Your task to perform on an android device: change the clock display to analog Image 0: 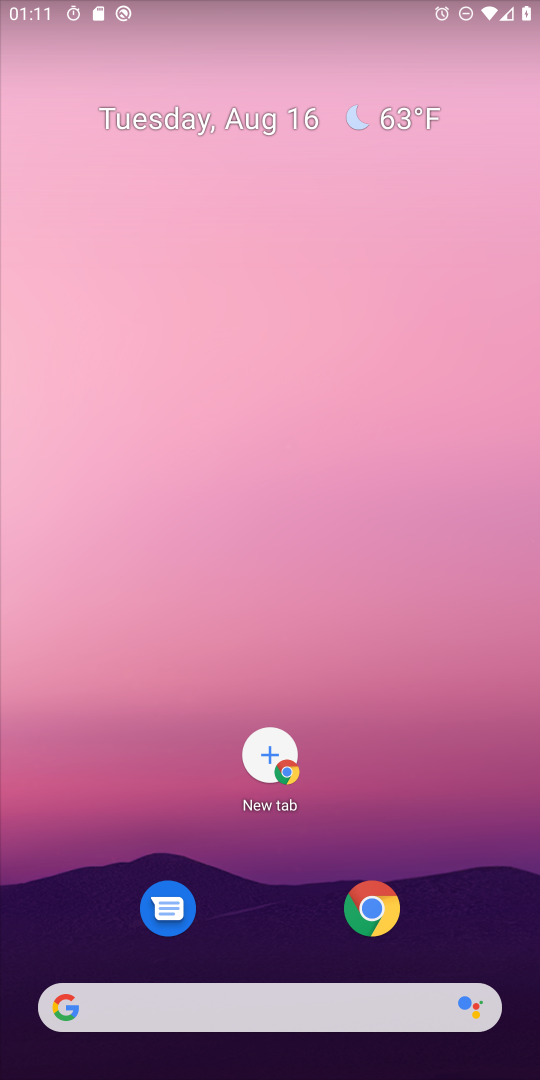
Step 0: drag from (265, 915) to (256, 24)
Your task to perform on an android device: change the clock display to analog Image 1: 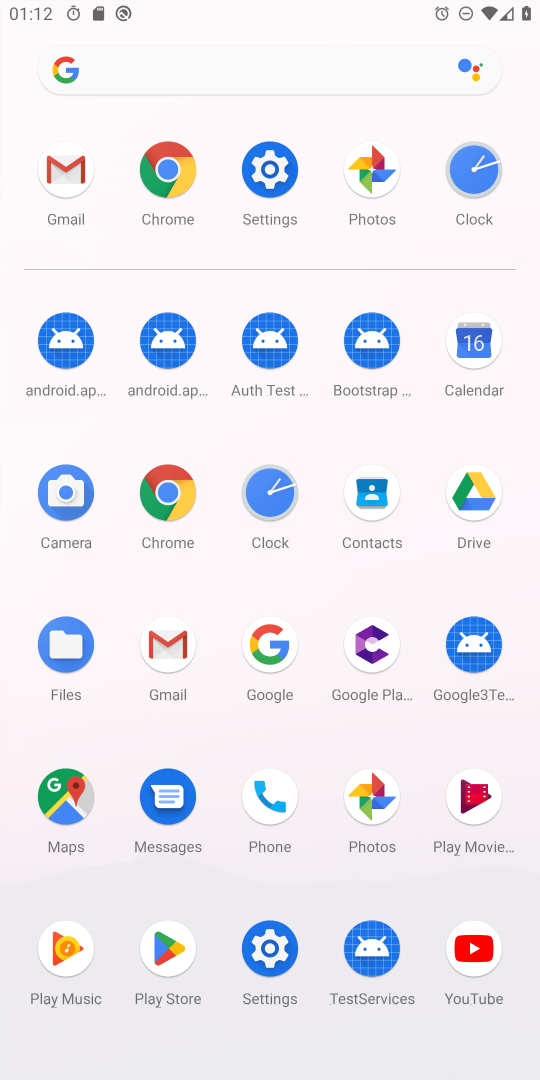
Step 1: click (479, 175)
Your task to perform on an android device: change the clock display to analog Image 2: 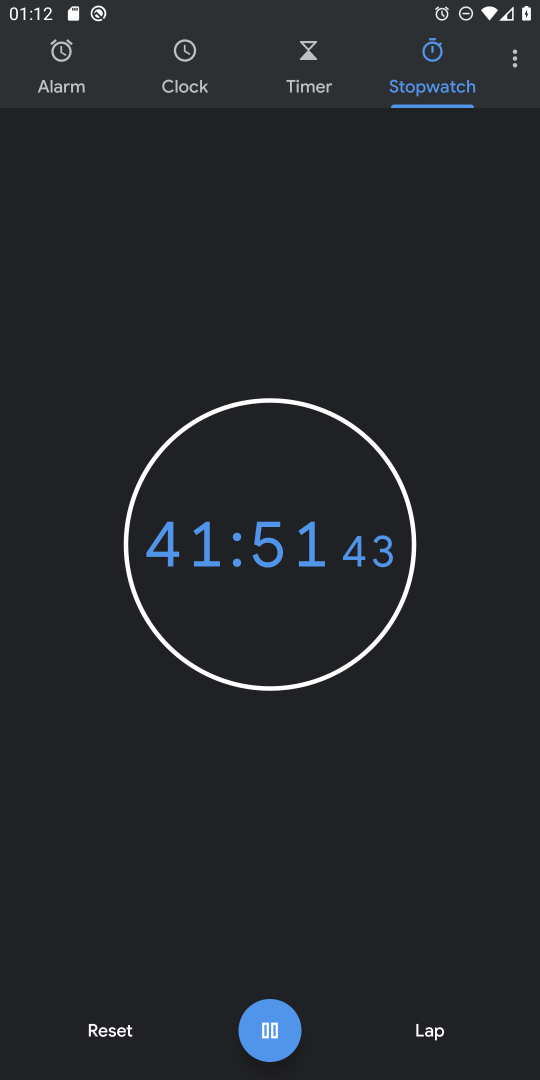
Step 2: click (519, 54)
Your task to perform on an android device: change the clock display to analog Image 3: 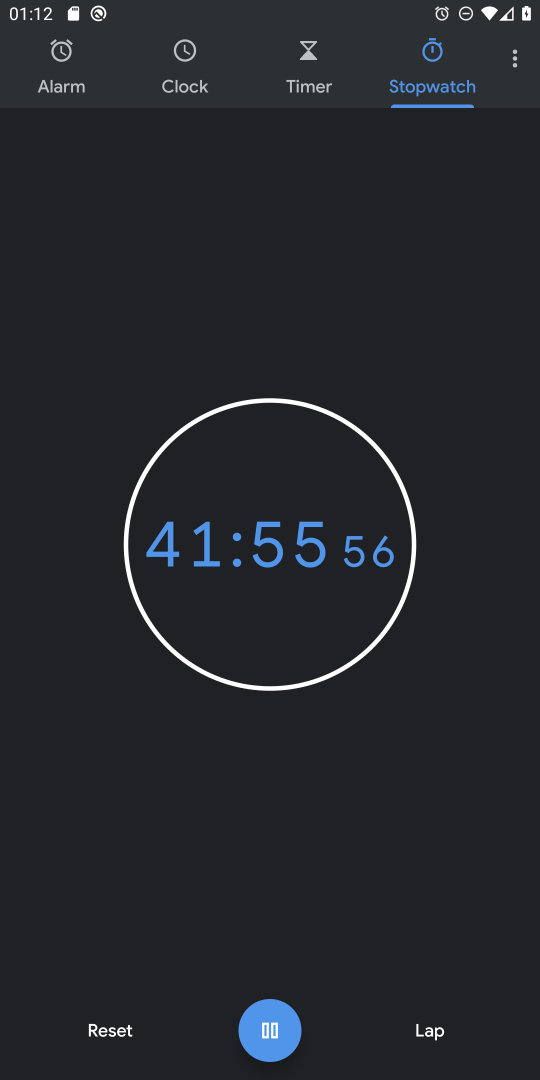
Step 3: click (519, 54)
Your task to perform on an android device: change the clock display to analog Image 4: 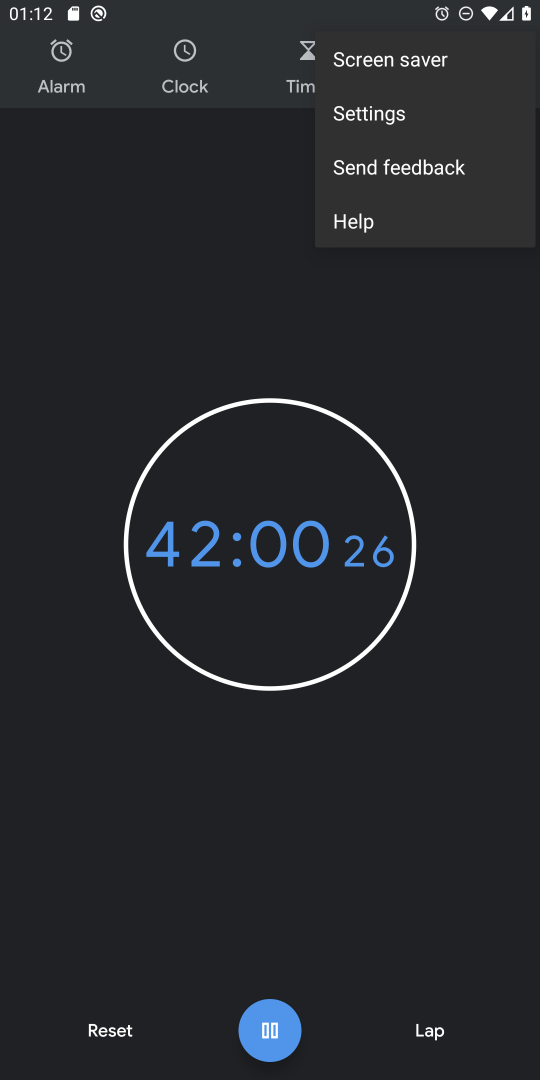
Step 4: click (379, 132)
Your task to perform on an android device: change the clock display to analog Image 5: 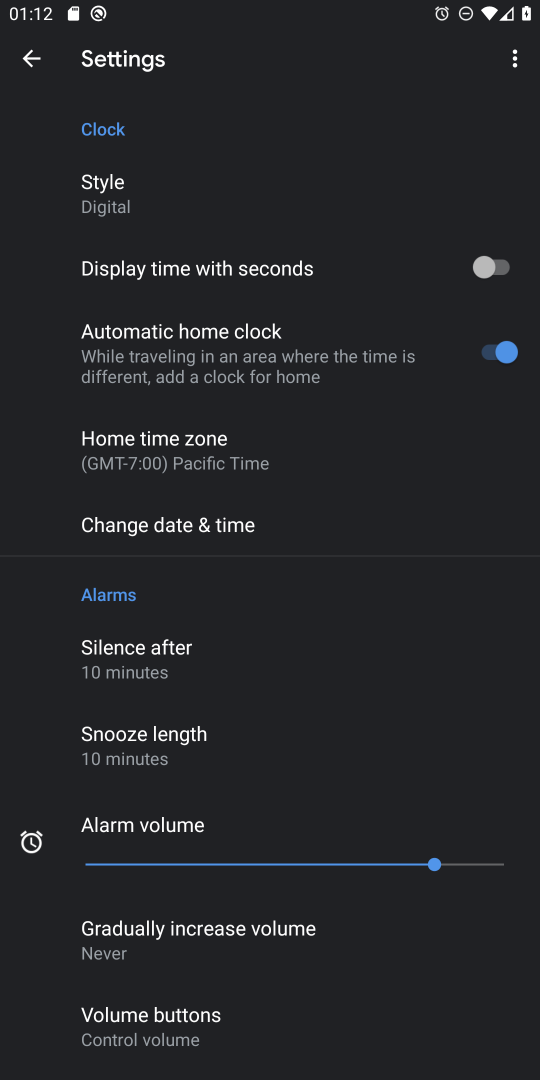
Step 5: click (165, 219)
Your task to perform on an android device: change the clock display to analog Image 6: 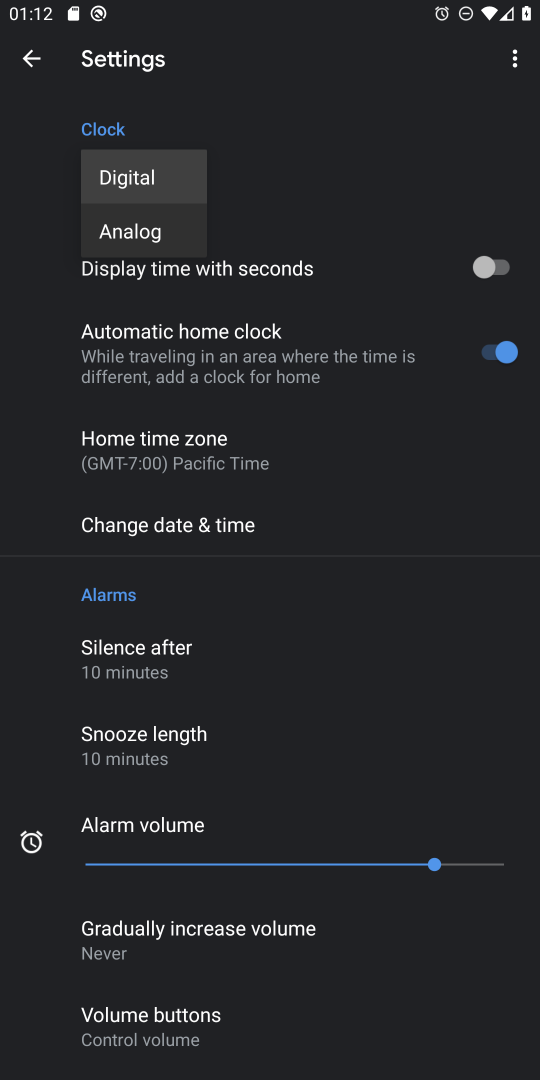
Step 6: click (165, 221)
Your task to perform on an android device: change the clock display to analog Image 7: 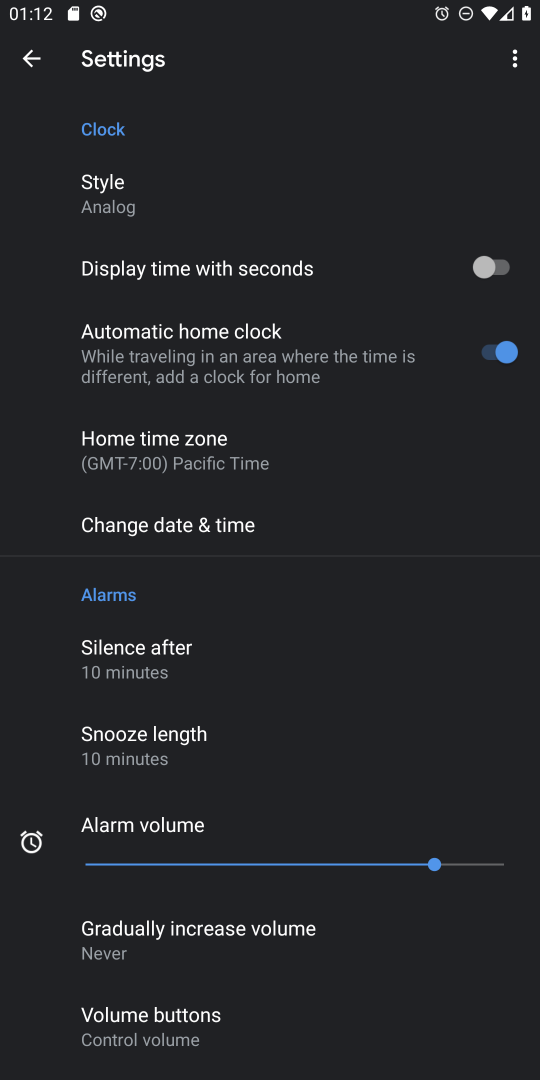
Step 7: task complete